Your task to perform on an android device: turn off priority inbox in the gmail app Image 0: 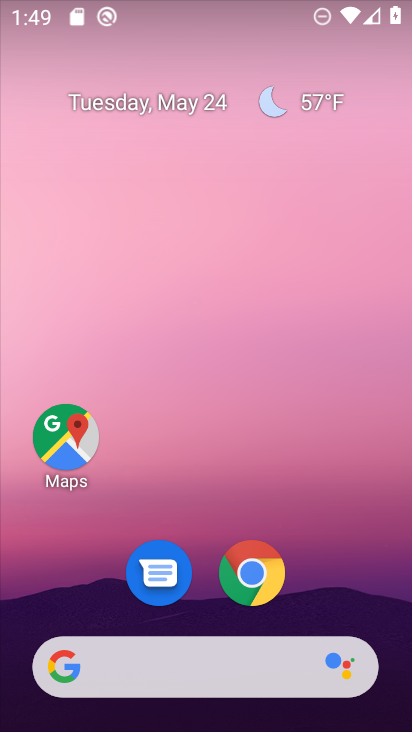
Step 0: drag from (335, 570) to (319, 143)
Your task to perform on an android device: turn off priority inbox in the gmail app Image 1: 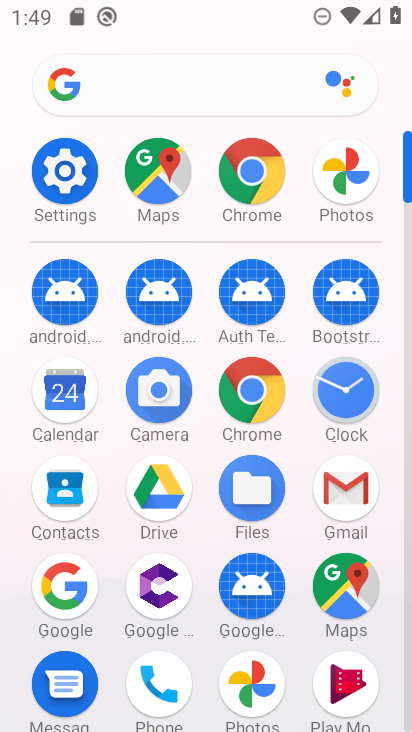
Step 1: click (332, 496)
Your task to perform on an android device: turn off priority inbox in the gmail app Image 2: 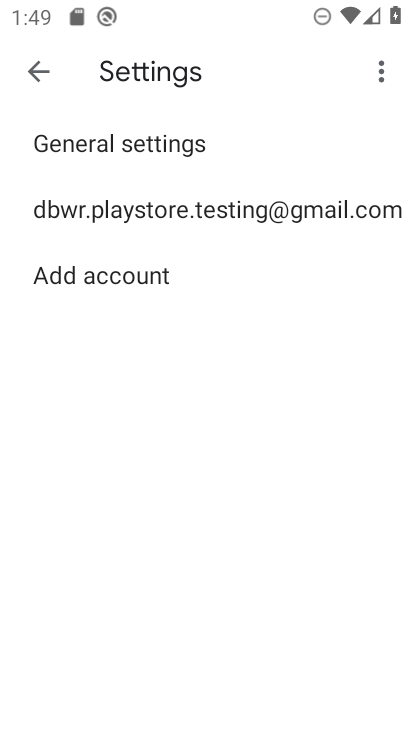
Step 2: click (278, 222)
Your task to perform on an android device: turn off priority inbox in the gmail app Image 3: 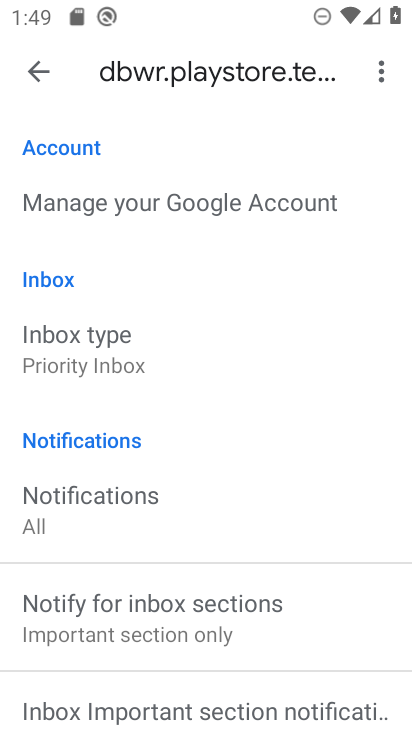
Step 3: click (146, 345)
Your task to perform on an android device: turn off priority inbox in the gmail app Image 4: 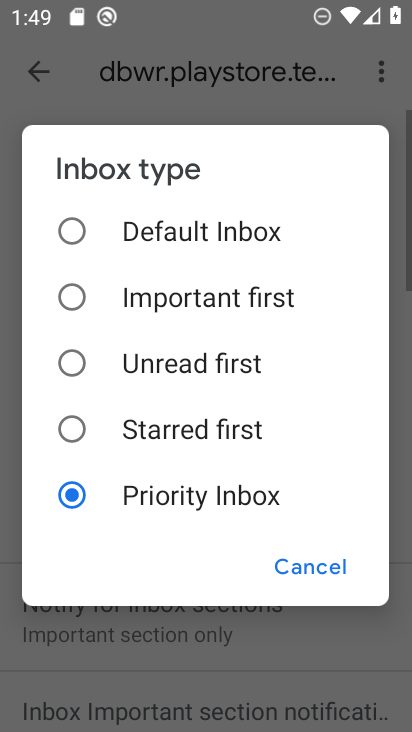
Step 4: click (168, 243)
Your task to perform on an android device: turn off priority inbox in the gmail app Image 5: 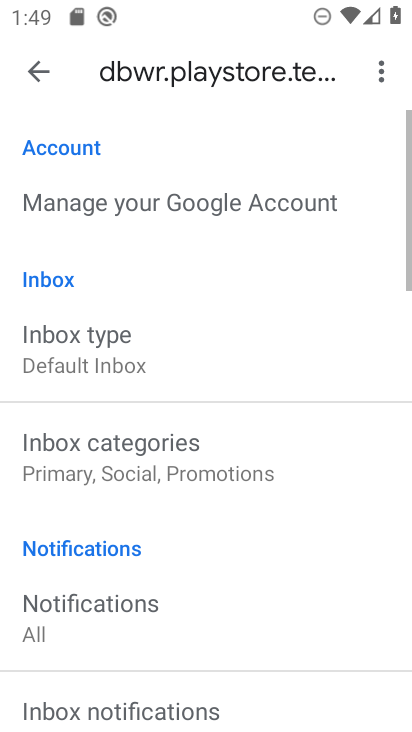
Step 5: task complete